Your task to perform on an android device: open chrome privacy settings Image 0: 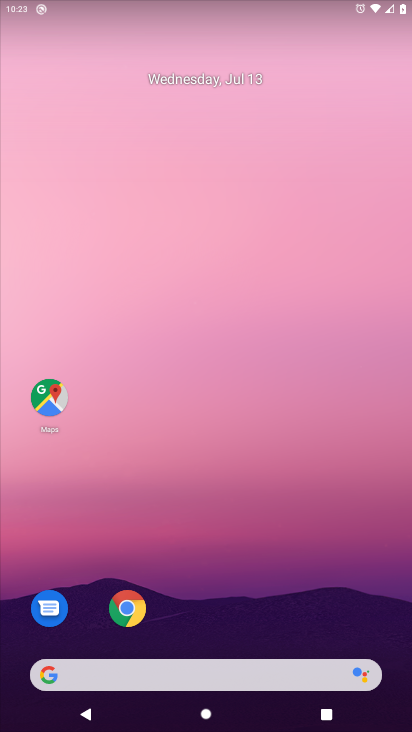
Step 0: click (128, 615)
Your task to perform on an android device: open chrome privacy settings Image 1: 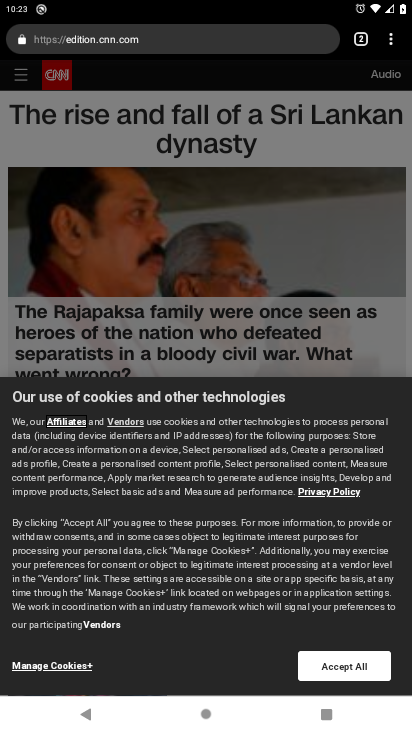
Step 1: click (391, 38)
Your task to perform on an android device: open chrome privacy settings Image 2: 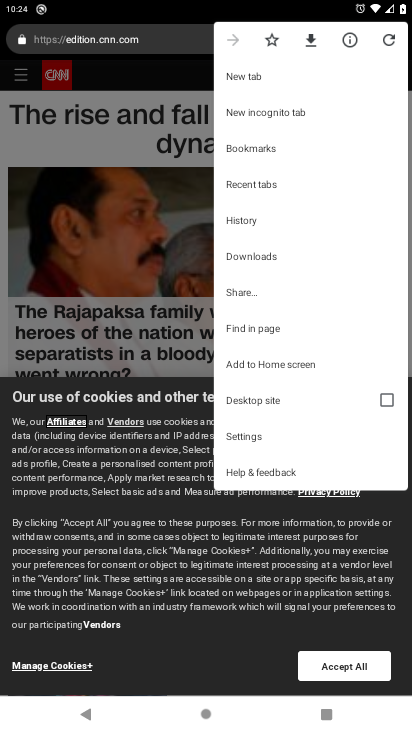
Step 2: click (256, 437)
Your task to perform on an android device: open chrome privacy settings Image 3: 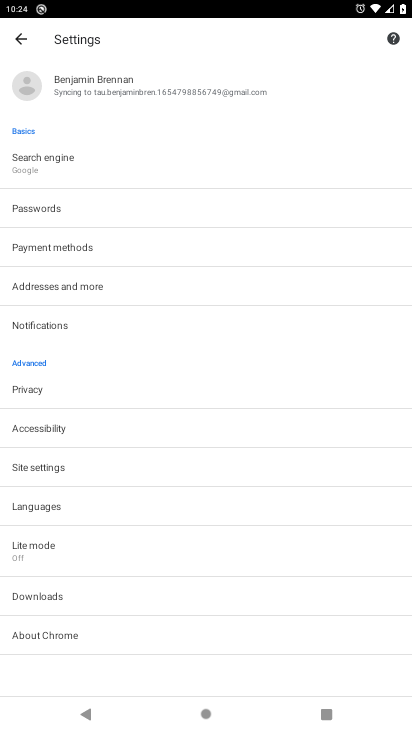
Step 3: click (30, 389)
Your task to perform on an android device: open chrome privacy settings Image 4: 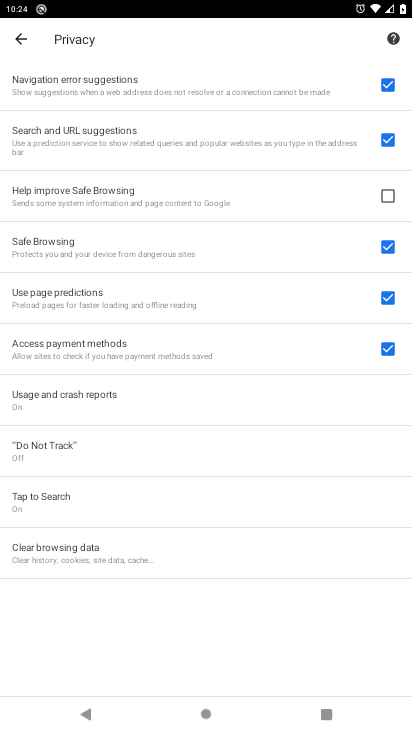
Step 4: task complete